Your task to perform on an android device: change notification settings in the gmail app Image 0: 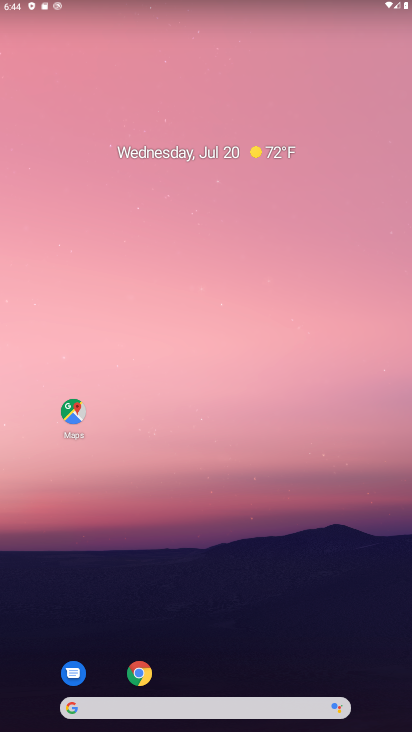
Step 0: drag from (346, 654) to (166, 26)
Your task to perform on an android device: change notification settings in the gmail app Image 1: 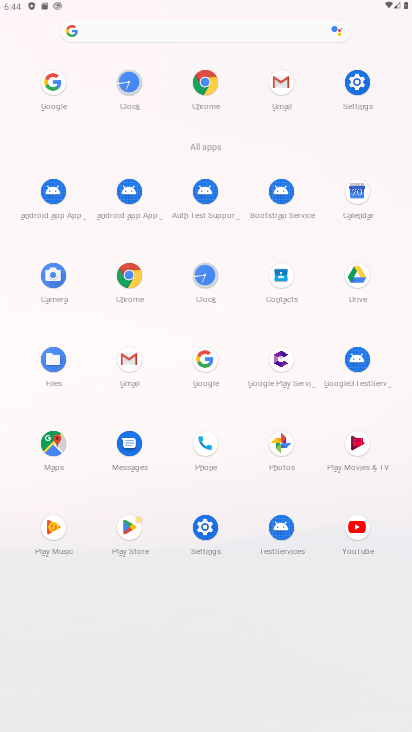
Step 1: click (127, 372)
Your task to perform on an android device: change notification settings in the gmail app Image 2: 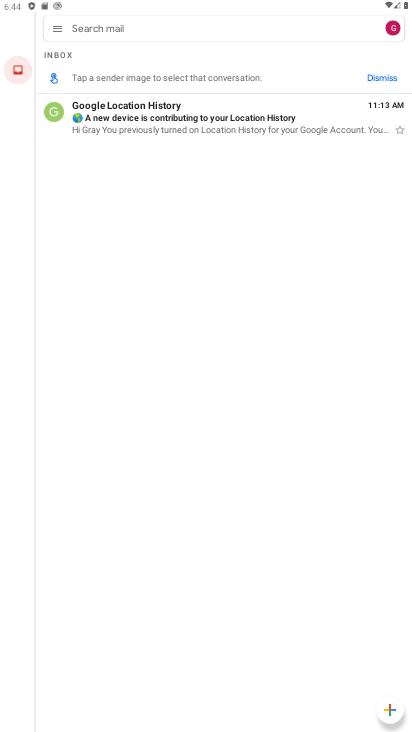
Step 2: click (59, 30)
Your task to perform on an android device: change notification settings in the gmail app Image 3: 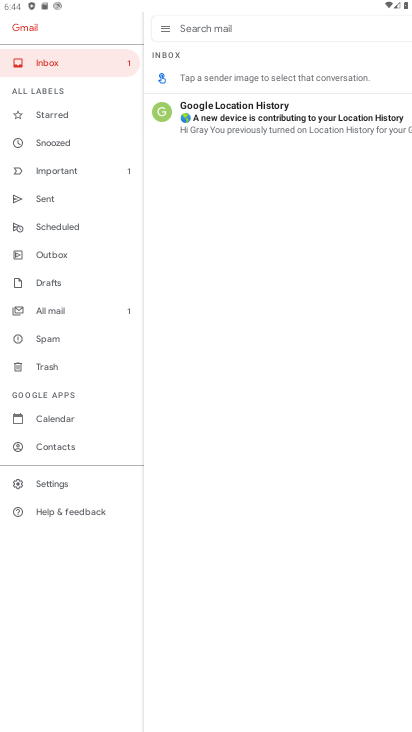
Step 3: click (63, 486)
Your task to perform on an android device: change notification settings in the gmail app Image 4: 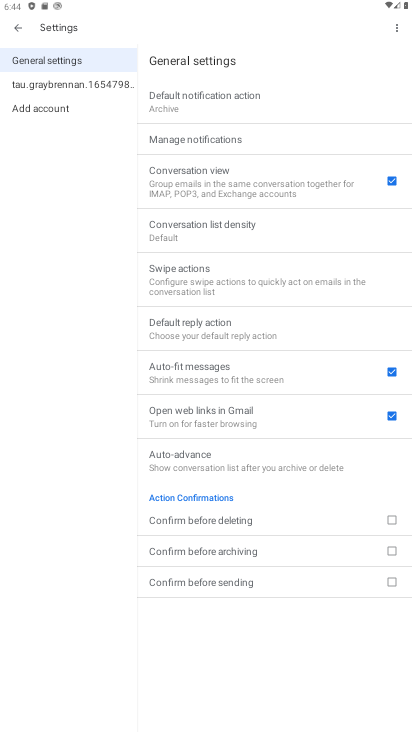
Step 4: click (36, 85)
Your task to perform on an android device: change notification settings in the gmail app Image 5: 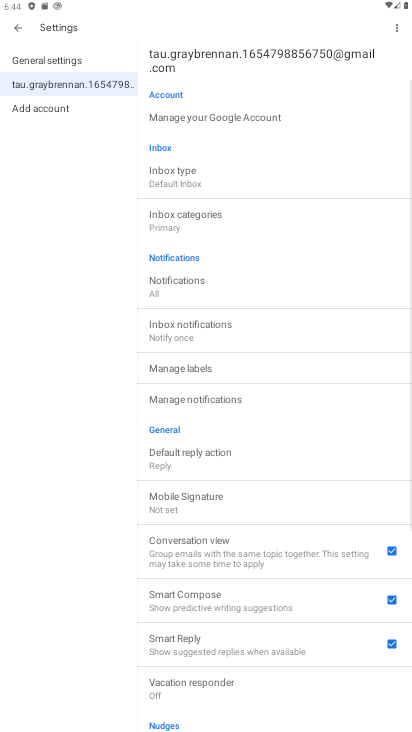
Step 5: click (196, 300)
Your task to perform on an android device: change notification settings in the gmail app Image 6: 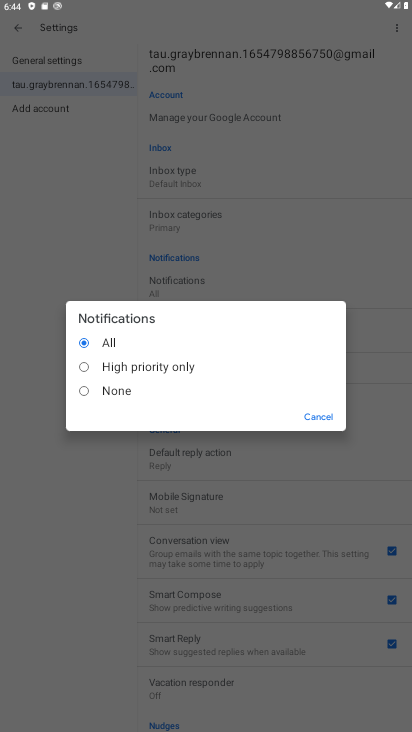
Step 6: click (107, 368)
Your task to perform on an android device: change notification settings in the gmail app Image 7: 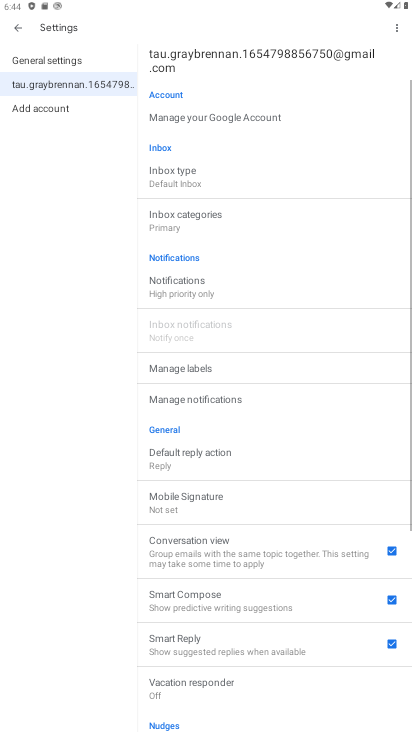
Step 7: task complete